Your task to perform on an android device: add a label to a message in the gmail app Image 0: 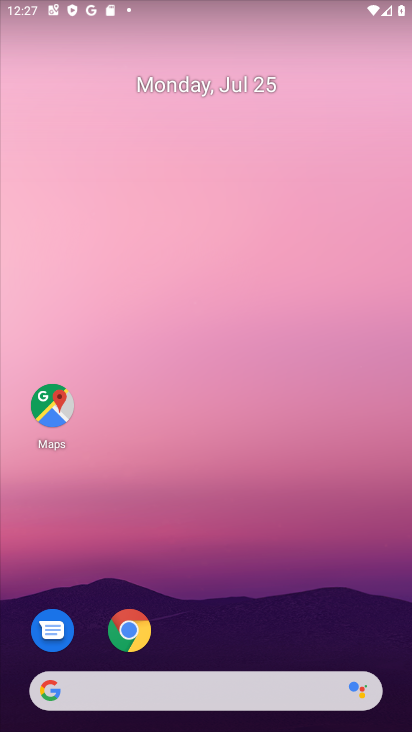
Step 0: click (52, 404)
Your task to perform on an android device: add a label to a message in the gmail app Image 1: 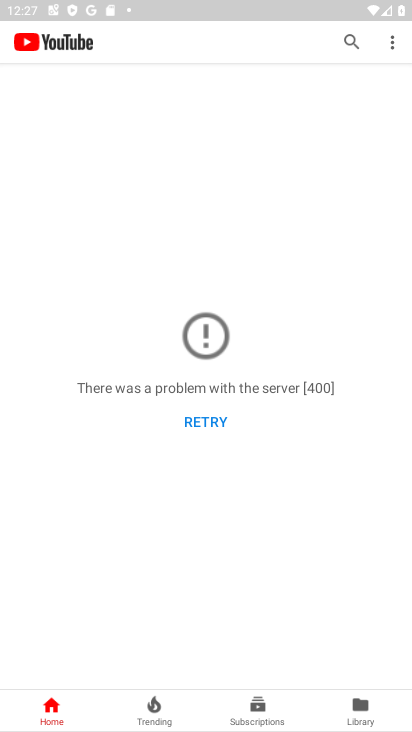
Step 1: press home button
Your task to perform on an android device: add a label to a message in the gmail app Image 2: 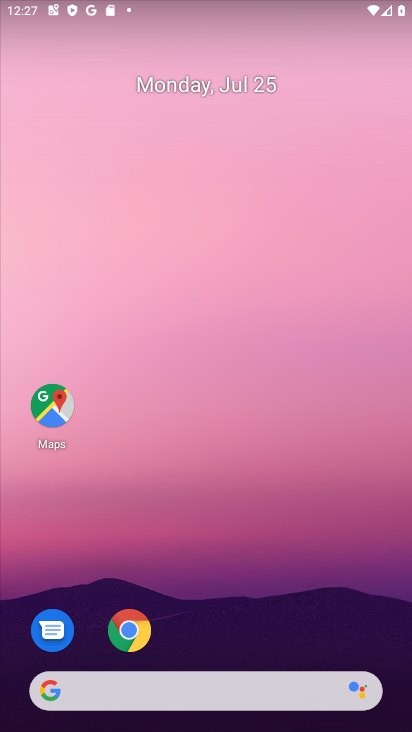
Step 2: drag from (185, 199) to (173, 166)
Your task to perform on an android device: add a label to a message in the gmail app Image 3: 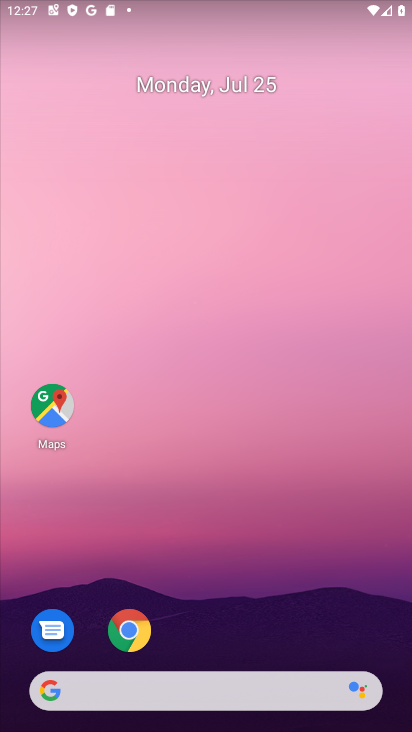
Step 3: drag from (185, 548) to (61, 15)
Your task to perform on an android device: add a label to a message in the gmail app Image 4: 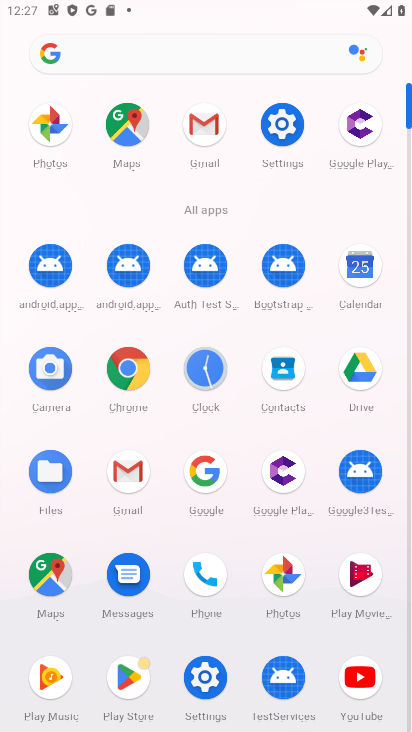
Step 4: click (198, 148)
Your task to perform on an android device: add a label to a message in the gmail app Image 5: 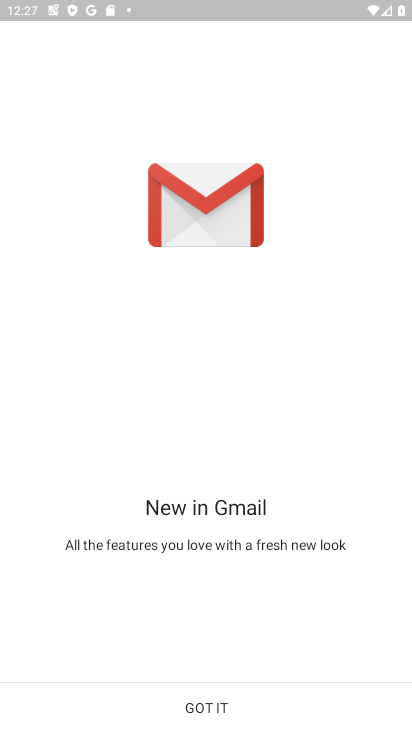
Step 5: click (198, 148)
Your task to perform on an android device: add a label to a message in the gmail app Image 6: 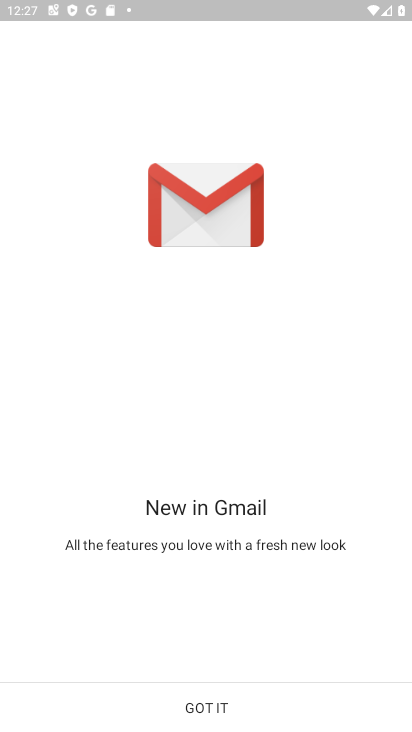
Step 6: click (226, 696)
Your task to perform on an android device: add a label to a message in the gmail app Image 7: 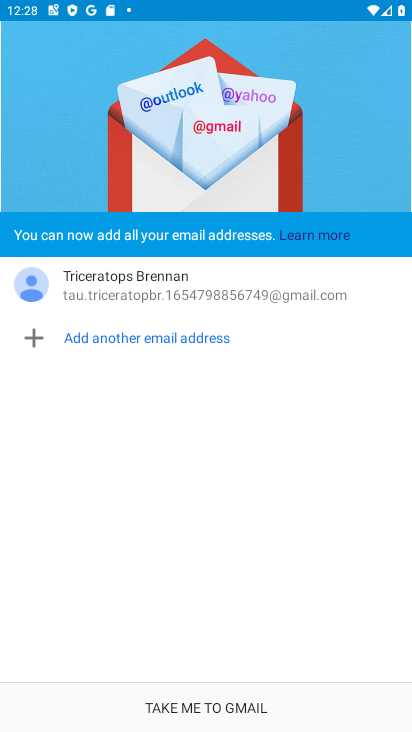
Step 7: click (220, 704)
Your task to perform on an android device: add a label to a message in the gmail app Image 8: 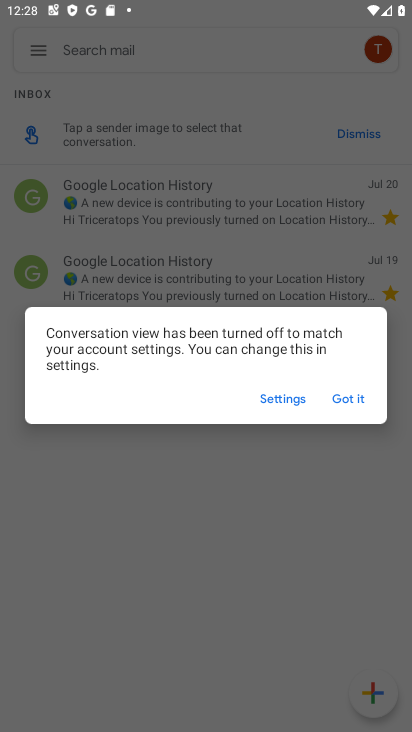
Step 8: click (351, 396)
Your task to perform on an android device: add a label to a message in the gmail app Image 9: 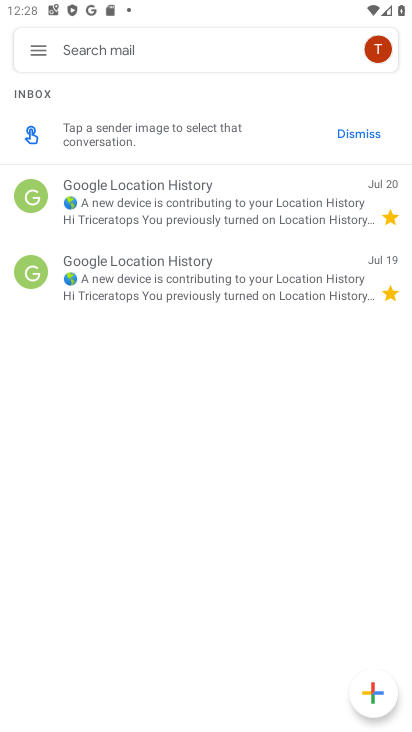
Step 9: click (275, 277)
Your task to perform on an android device: add a label to a message in the gmail app Image 10: 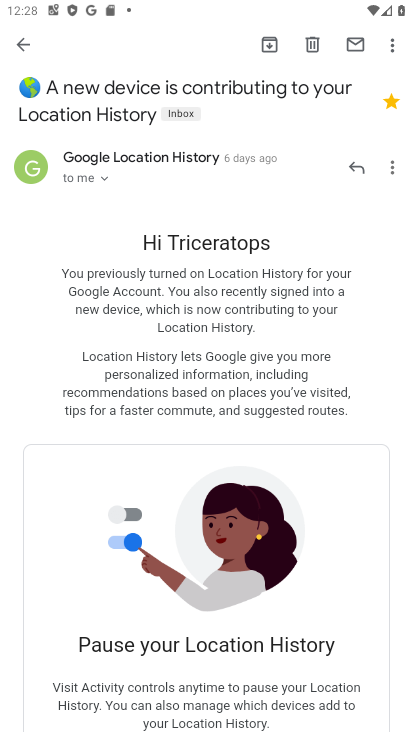
Step 10: click (175, 117)
Your task to perform on an android device: add a label to a message in the gmail app Image 11: 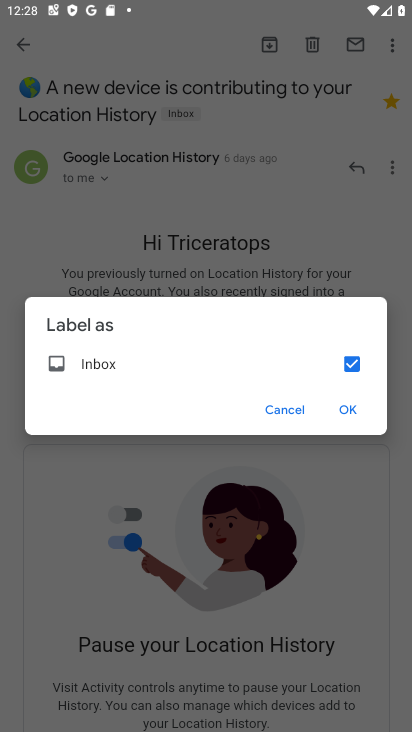
Step 11: task complete